Your task to perform on an android device: Open the phone app and click the voicemail tab. Image 0: 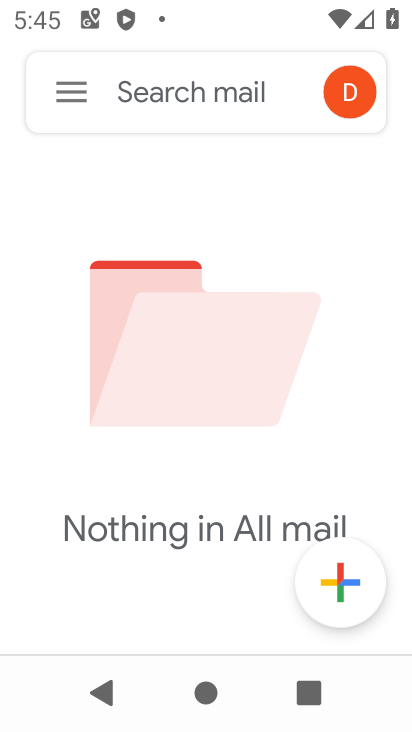
Step 0: press back button
Your task to perform on an android device: Open the phone app and click the voicemail tab. Image 1: 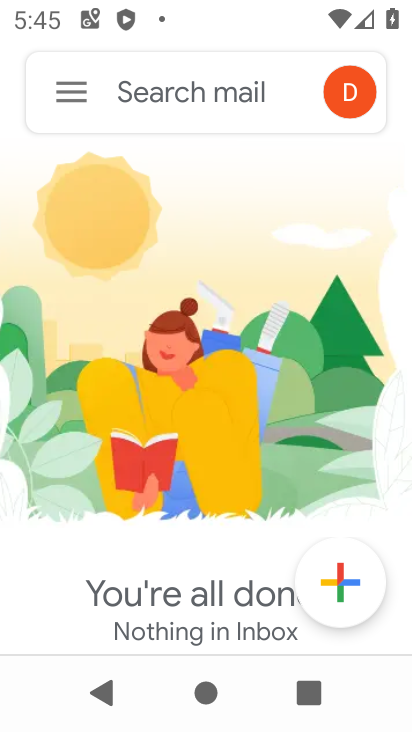
Step 1: press back button
Your task to perform on an android device: Open the phone app and click the voicemail tab. Image 2: 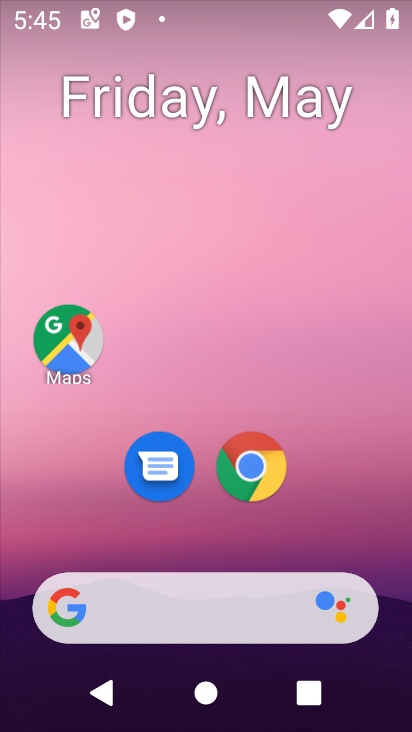
Step 2: drag from (354, 551) to (241, 8)
Your task to perform on an android device: Open the phone app and click the voicemail tab. Image 3: 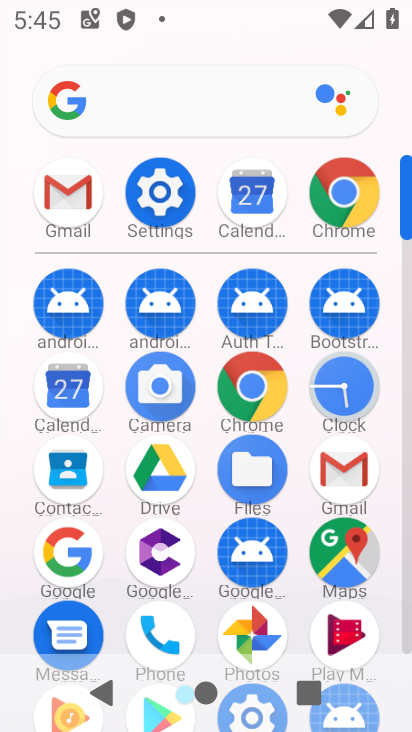
Step 3: drag from (8, 557) to (14, 243)
Your task to perform on an android device: Open the phone app and click the voicemail tab. Image 4: 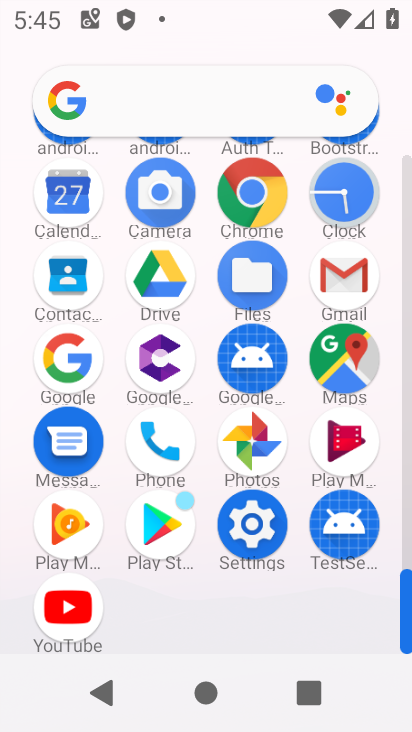
Step 4: drag from (10, 247) to (7, 391)
Your task to perform on an android device: Open the phone app and click the voicemail tab. Image 5: 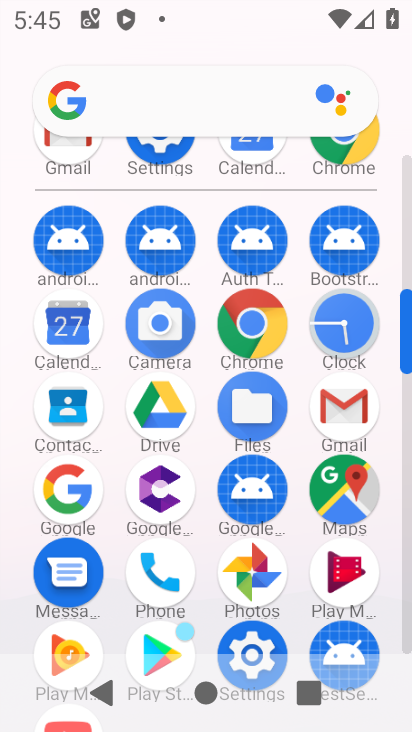
Step 5: click (160, 565)
Your task to perform on an android device: Open the phone app and click the voicemail tab. Image 6: 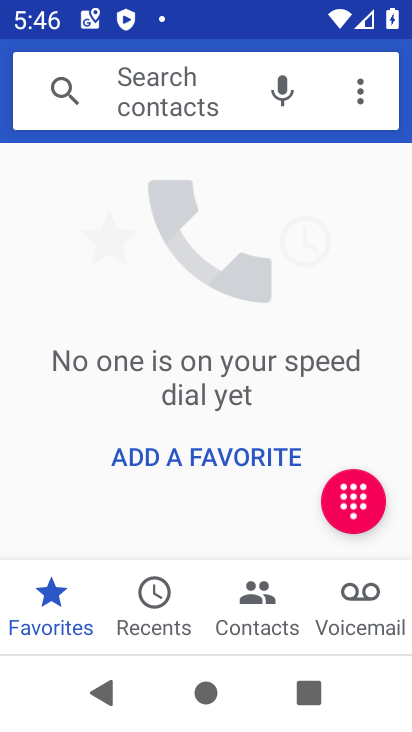
Step 6: click (354, 618)
Your task to perform on an android device: Open the phone app and click the voicemail tab. Image 7: 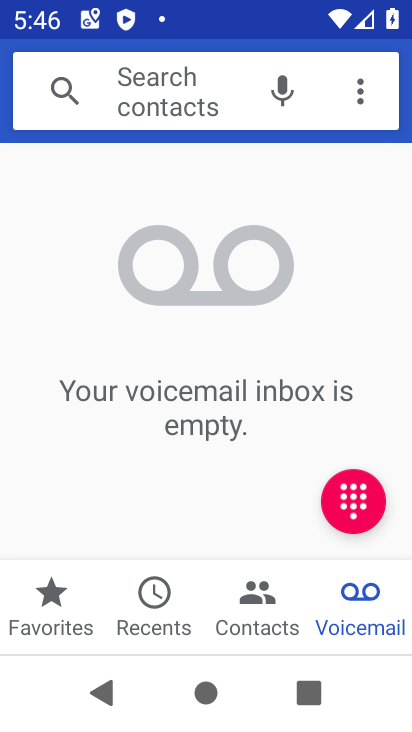
Step 7: task complete